Your task to perform on an android device: add a contact in the contacts app Image 0: 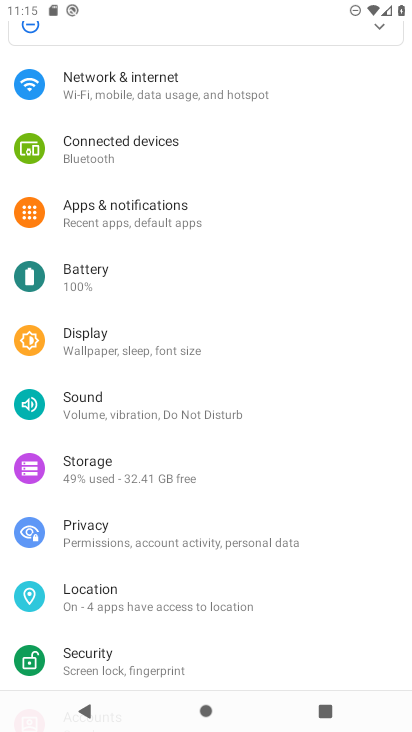
Step 0: press home button
Your task to perform on an android device: add a contact in the contacts app Image 1: 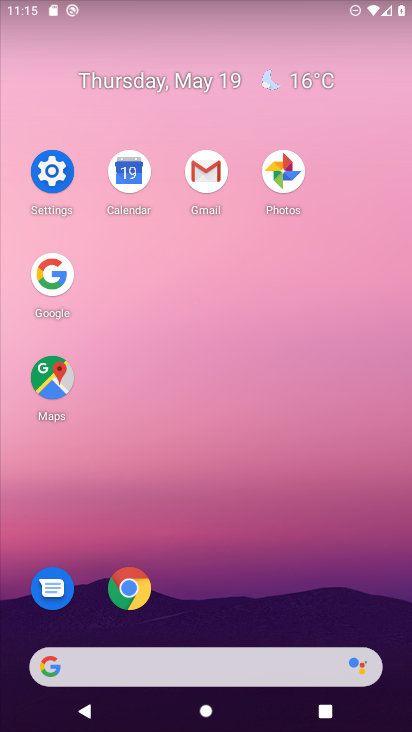
Step 1: drag from (225, 527) to (195, 197)
Your task to perform on an android device: add a contact in the contacts app Image 2: 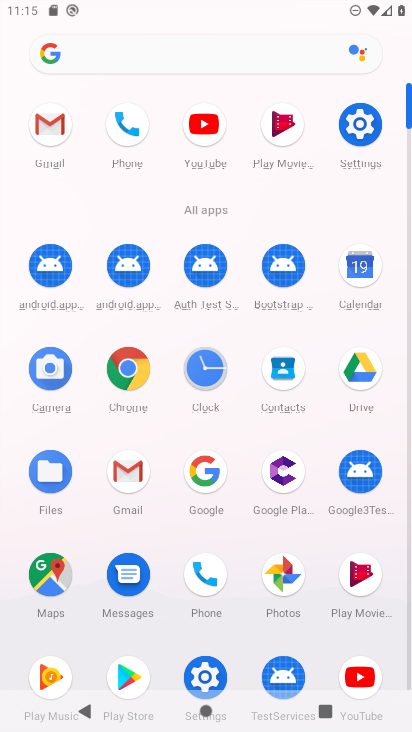
Step 2: click (277, 364)
Your task to perform on an android device: add a contact in the contacts app Image 3: 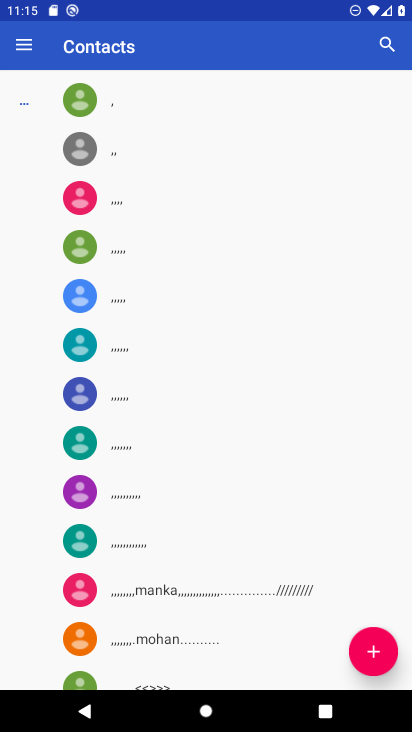
Step 3: click (379, 648)
Your task to perform on an android device: add a contact in the contacts app Image 4: 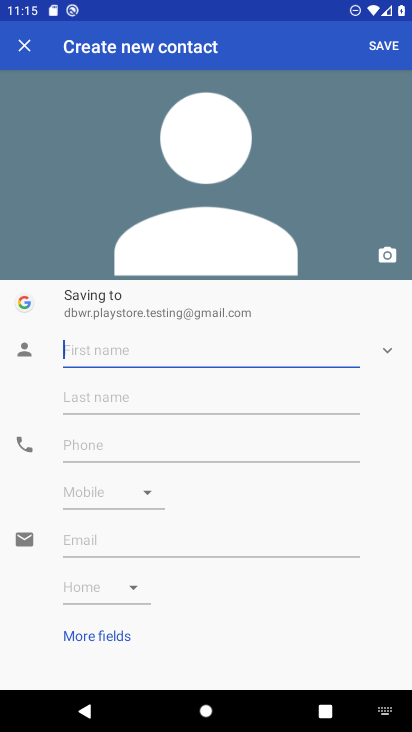
Step 4: type "ddsss"
Your task to perform on an android device: add a contact in the contacts app Image 5: 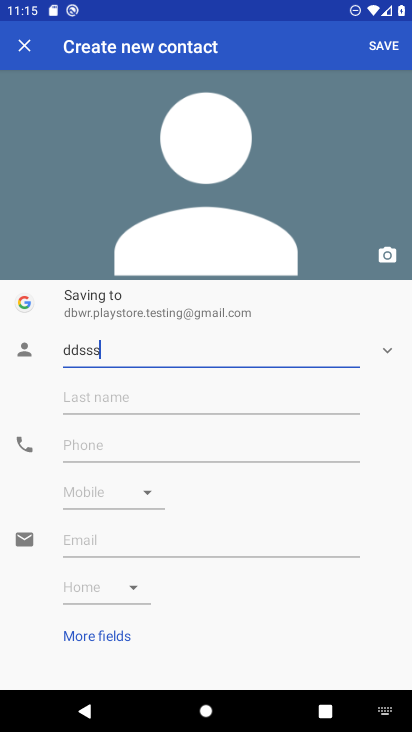
Step 5: click (136, 436)
Your task to perform on an android device: add a contact in the contacts app Image 6: 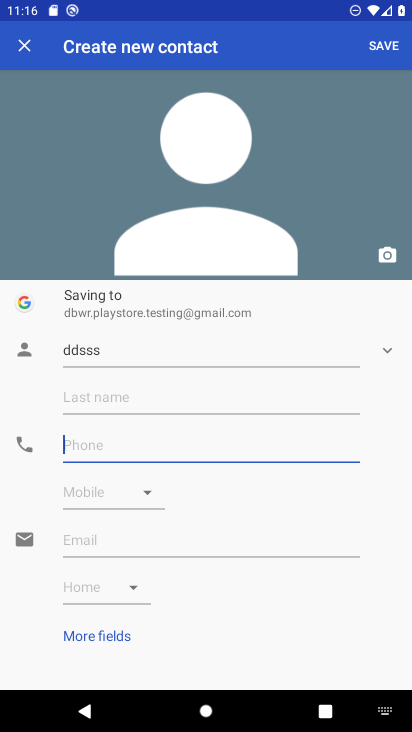
Step 6: type "9909098890"
Your task to perform on an android device: add a contact in the contacts app Image 7: 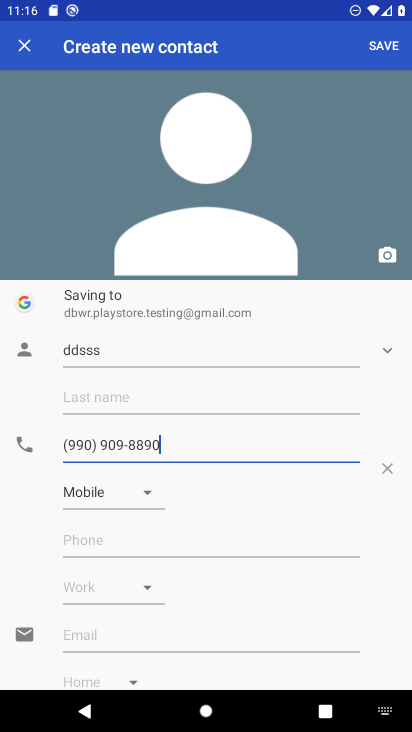
Step 7: click (389, 39)
Your task to perform on an android device: add a contact in the contacts app Image 8: 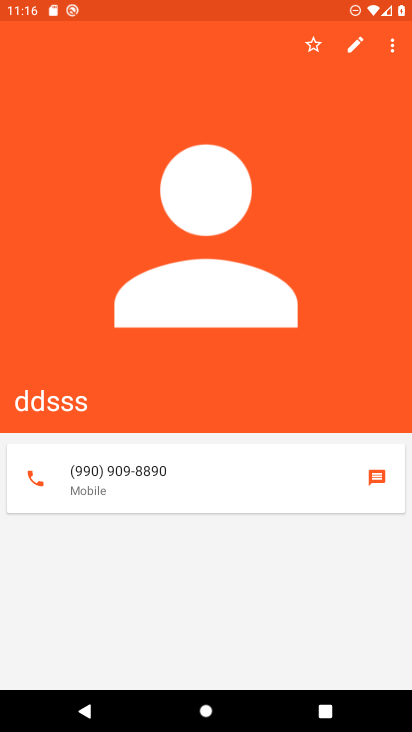
Step 8: task complete